Your task to perform on an android device: Open the phone app and click the voicemail tab. Image 0: 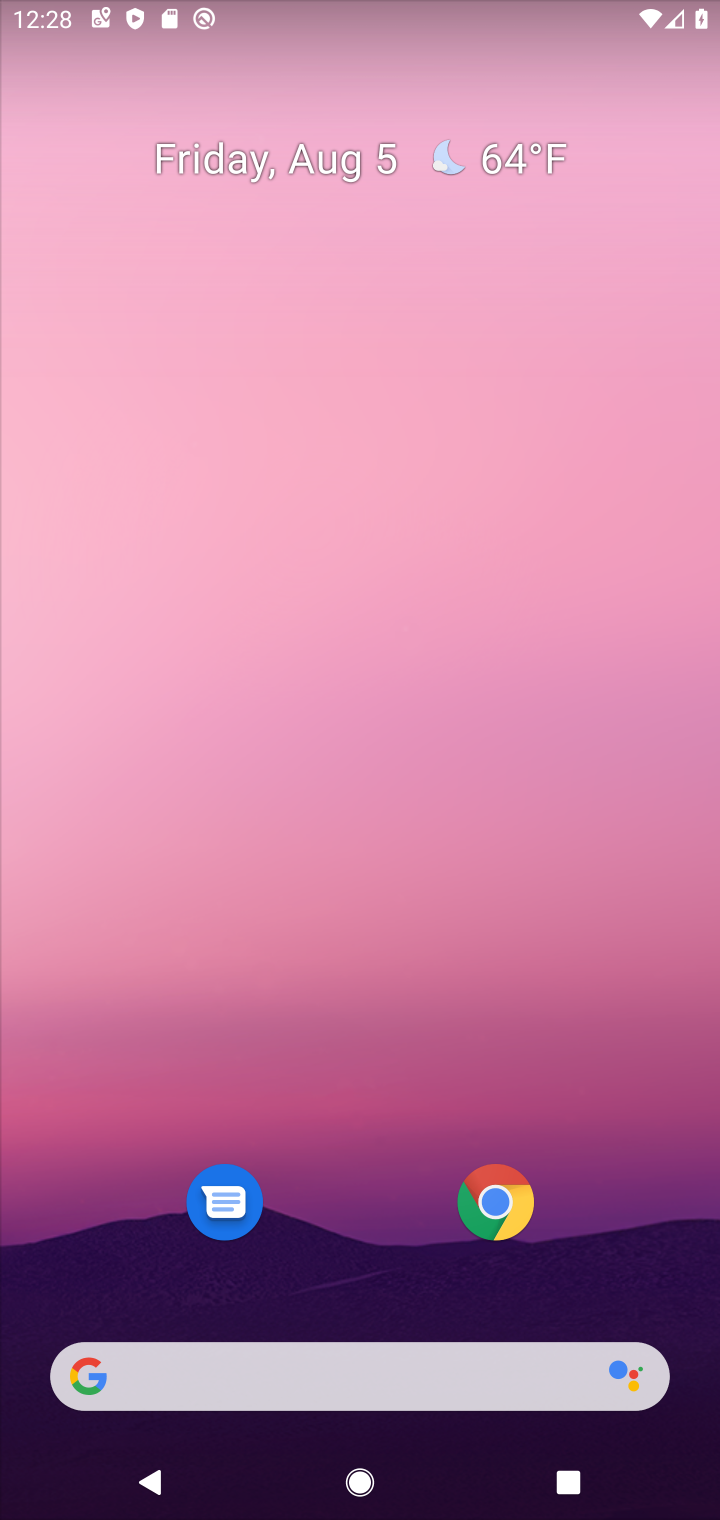
Step 0: drag from (375, 815) to (353, 27)
Your task to perform on an android device: Open the phone app and click the voicemail tab. Image 1: 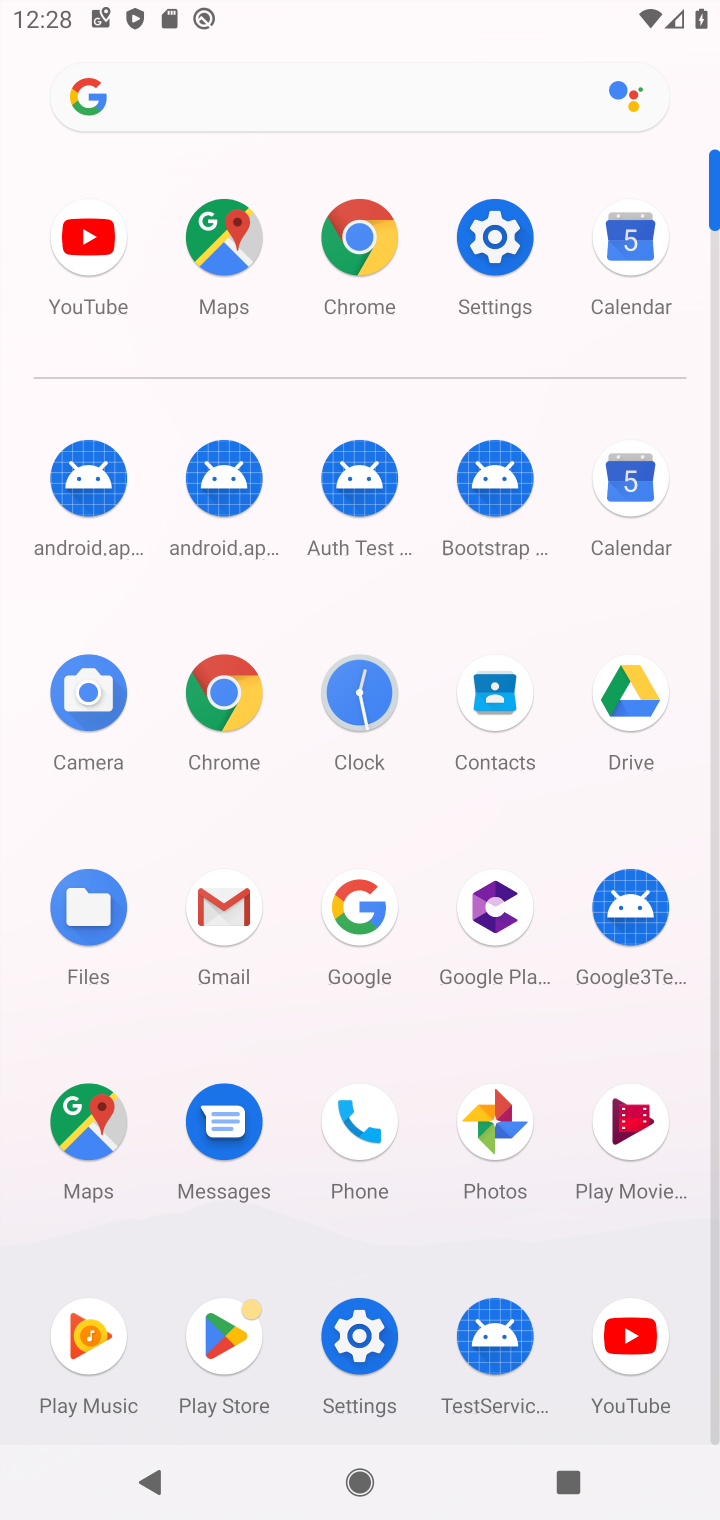
Step 1: click (358, 1131)
Your task to perform on an android device: Open the phone app and click the voicemail tab. Image 2: 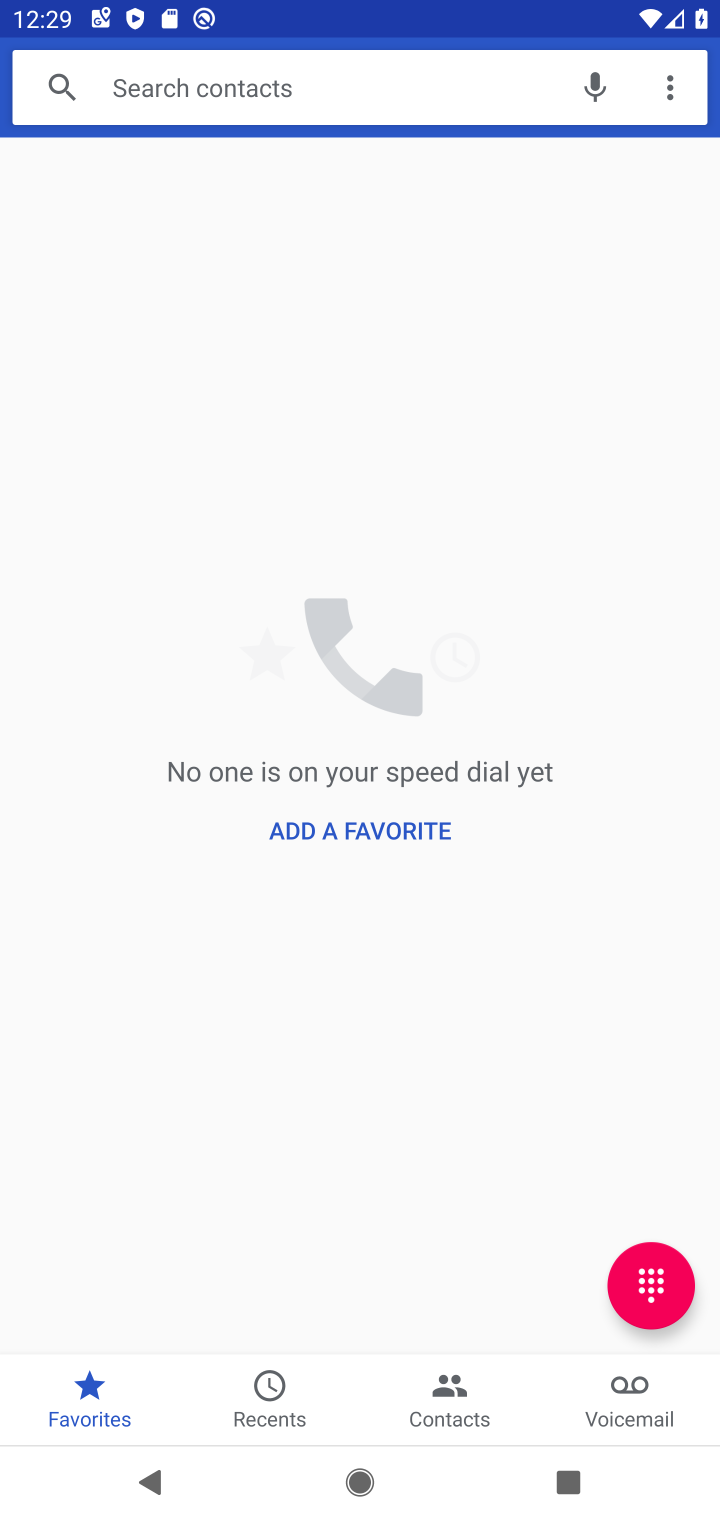
Step 2: click (644, 1422)
Your task to perform on an android device: Open the phone app and click the voicemail tab. Image 3: 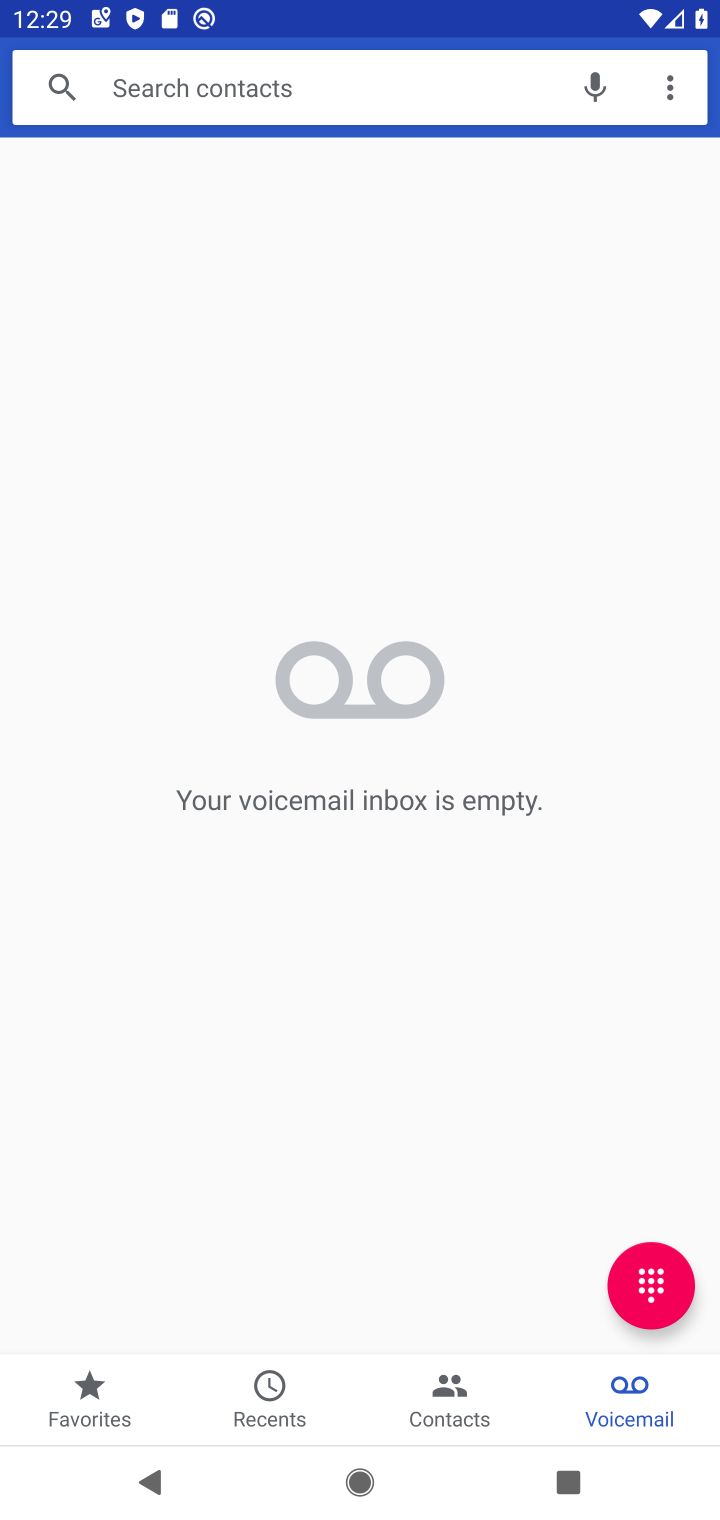
Step 3: task complete